Your task to perform on an android device: Go to ESPN.com Image 0: 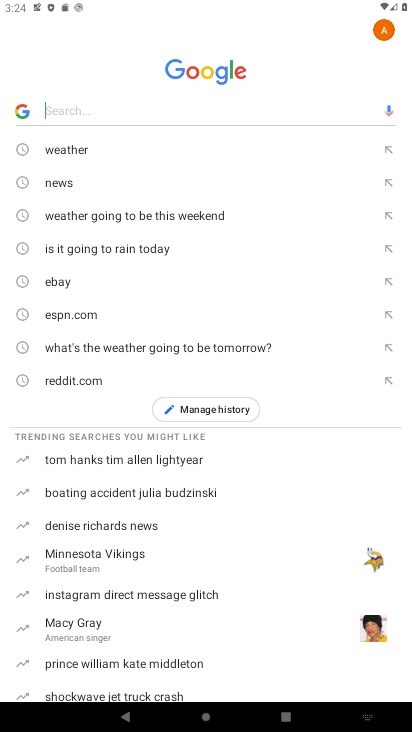
Step 0: press home button
Your task to perform on an android device: Go to ESPN.com Image 1: 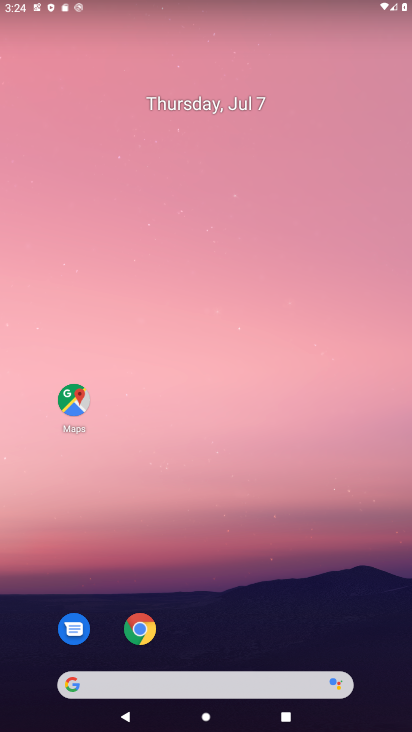
Step 1: drag from (221, 595) to (159, 111)
Your task to perform on an android device: Go to ESPN.com Image 2: 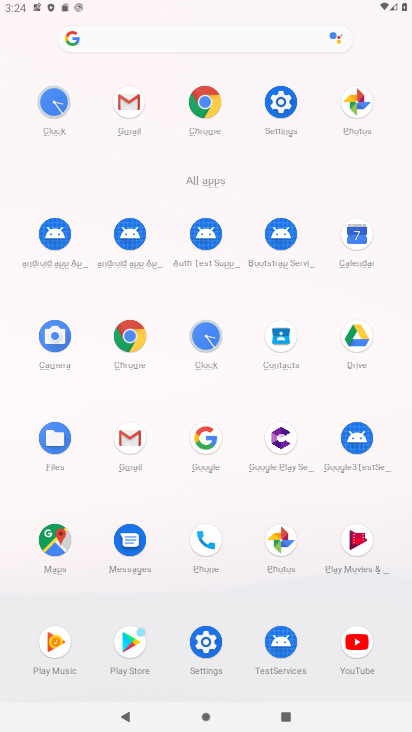
Step 2: click (203, 99)
Your task to perform on an android device: Go to ESPN.com Image 3: 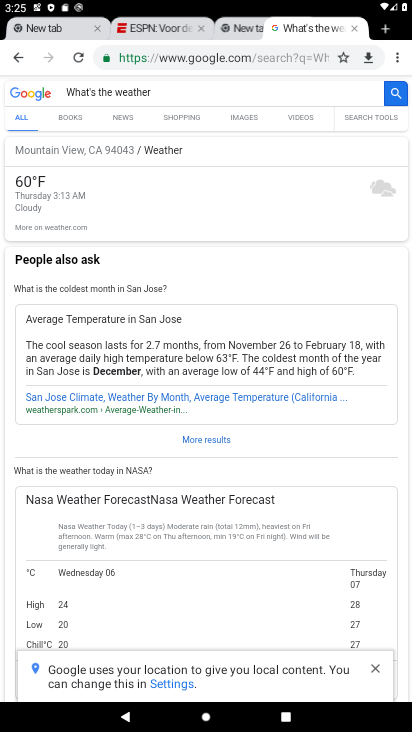
Step 3: click (358, 22)
Your task to perform on an android device: Go to ESPN.com Image 4: 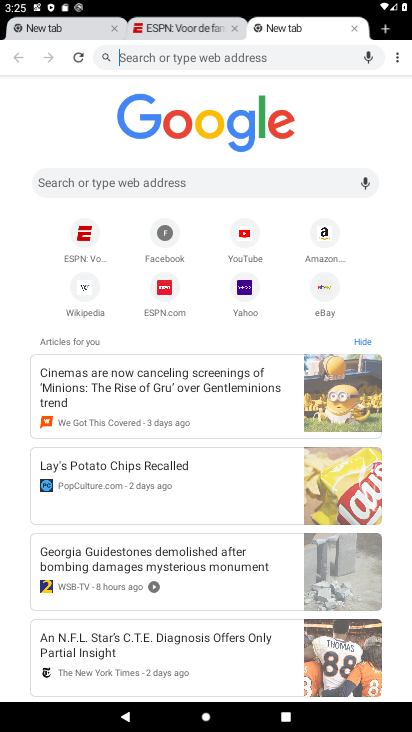
Step 4: click (356, 31)
Your task to perform on an android device: Go to ESPN.com Image 5: 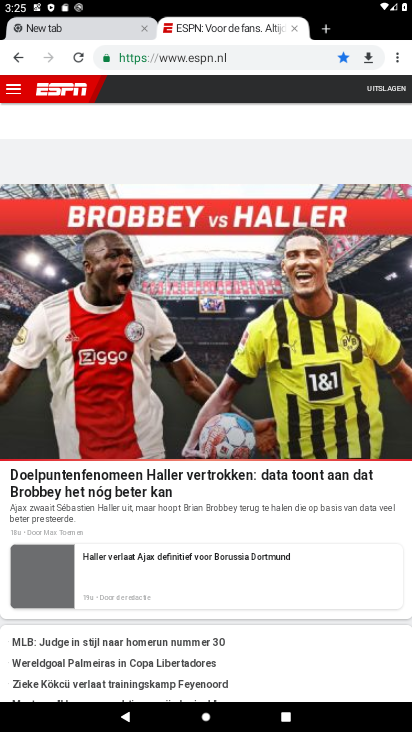
Step 5: click (294, 27)
Your task to perform on an android device: Go to ESPN.com Image 6: 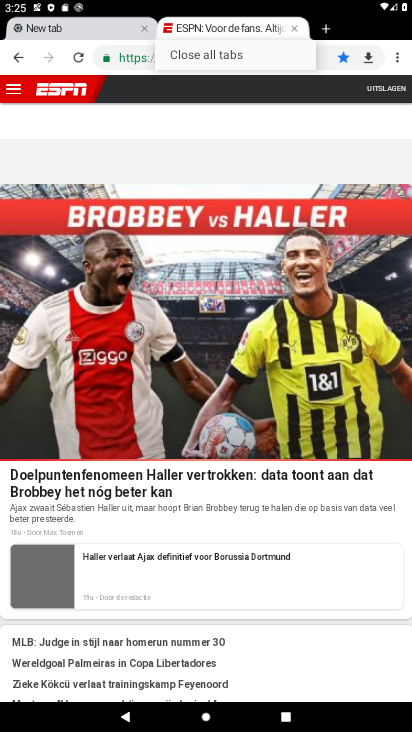
Step 6: click (295, 29)
Your task to perform on an android device: Go to ESPN.com Image 7: 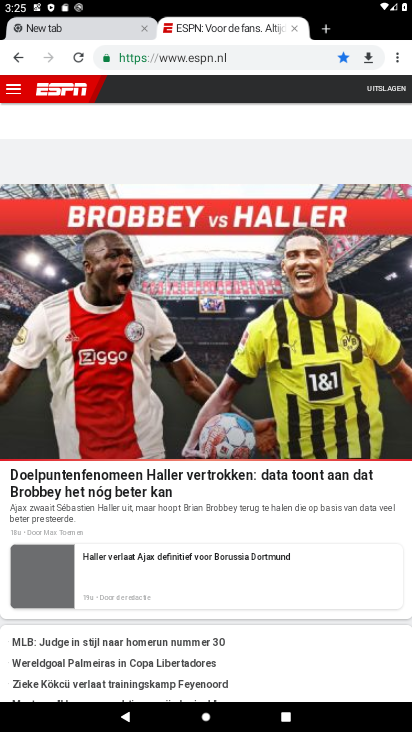
Step 7: click (143, 25)
Your task to perform on an android device: Go to ESPN.com Image 8: 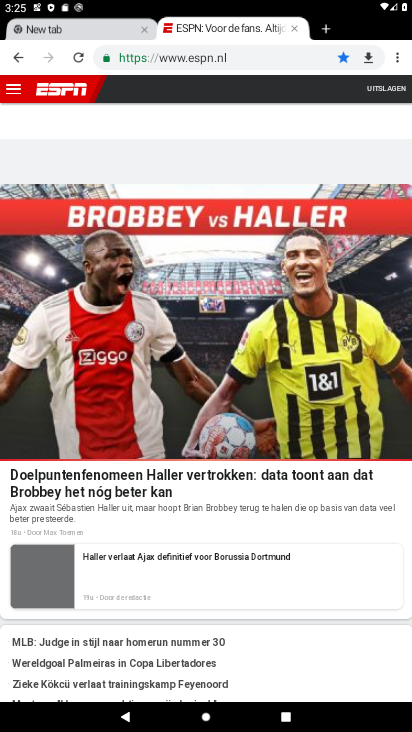
Step 8: click (143, 25)
Your task to perform on an android device: Go to ESPN.com Image 9: 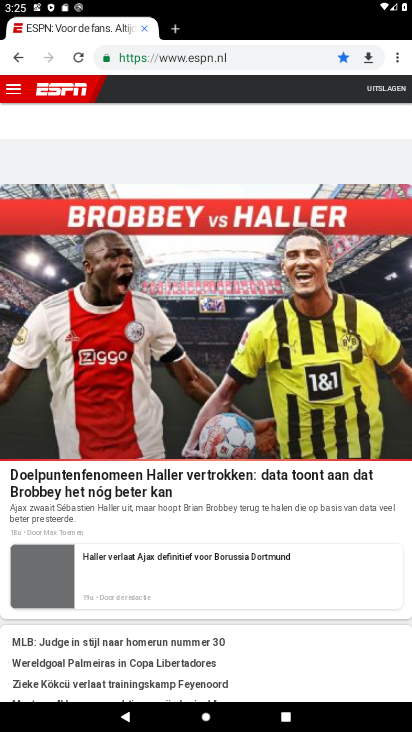
Step 9: click (143, 25)
Your task to perform on an android device: Go to ESPN.com Image 10: 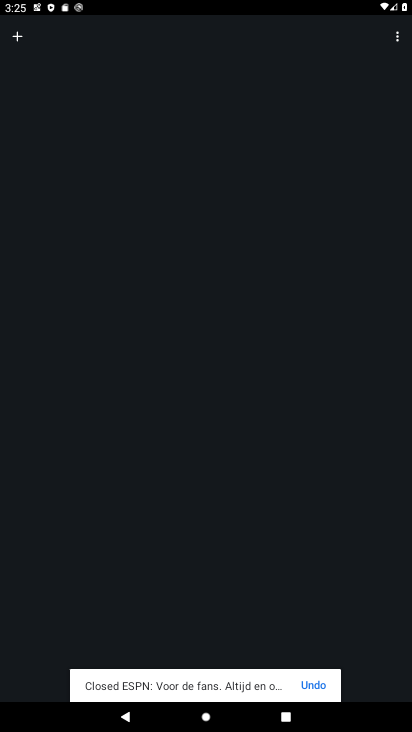
Step 10: click (28, 37)
Your task to perform on an android device: Go to ESPN.com Image 11: 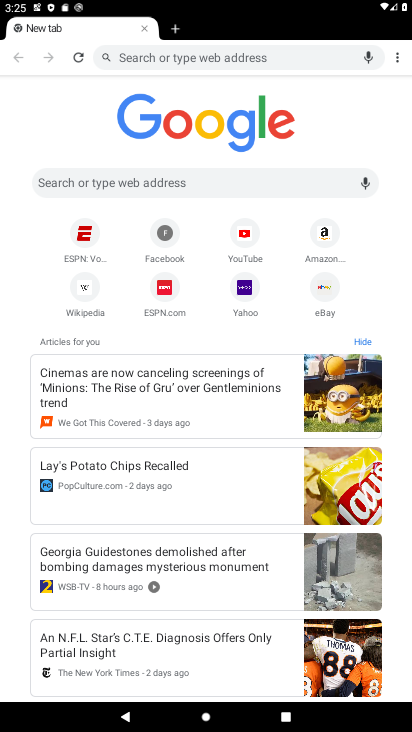
Step 11: click (77, 227)
Your task to perform on an android device: Go to ESPN.com Image 12: 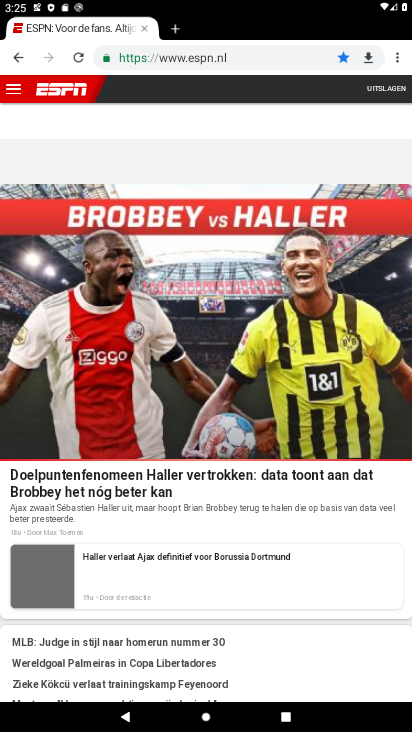
Step 12: task complete